Your task to perform on an android device: Show me popular games on the Play Store Image 0: 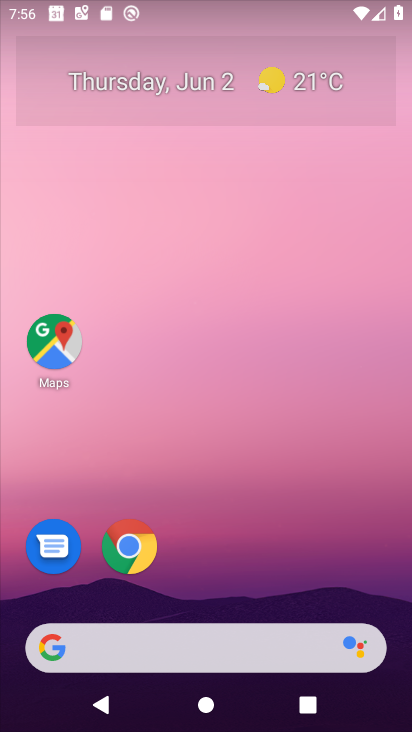
Step 0: drag from (221, 517) to (227, 73)
Your task to perform on an android device: Show me popular games on the Play Store Image 1: 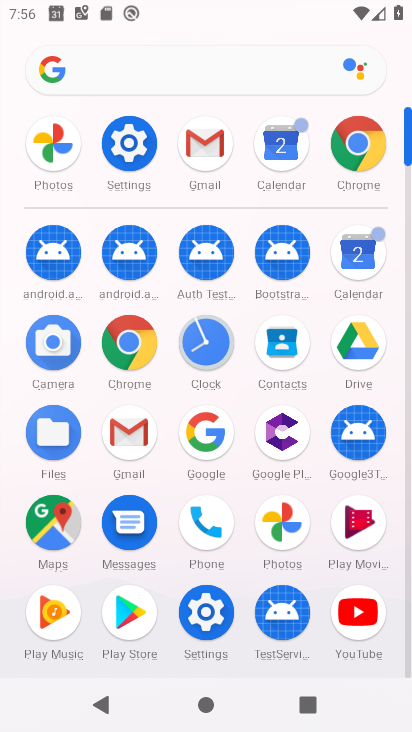
Step 1: click (128, 602)
Your task to perform on an android device: Show me popular games on the Play Store Image 2: 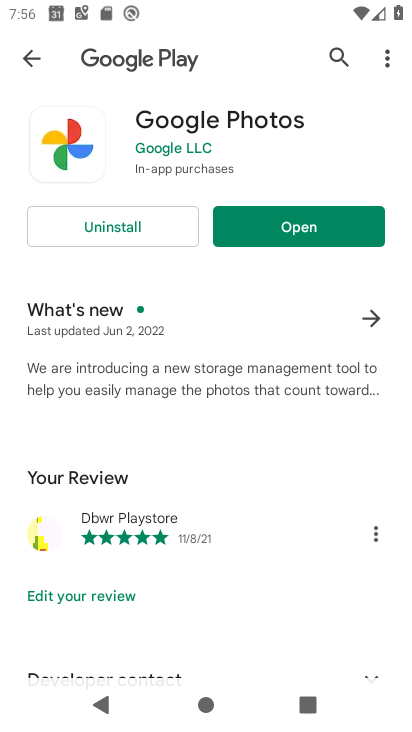
Step 2: click (24, 60)
Your task to perform on an android device: Show me popular games on the Play Store Image 3: 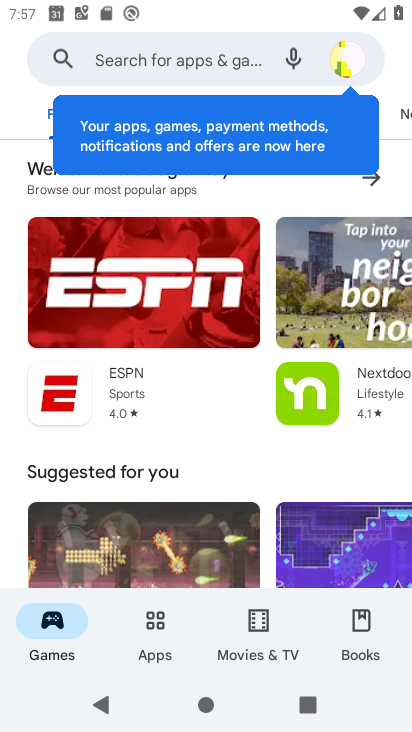
Step 3: click (8, 101)
Your task to perform on an android device: Show me popular games on the Play Store Image 4: 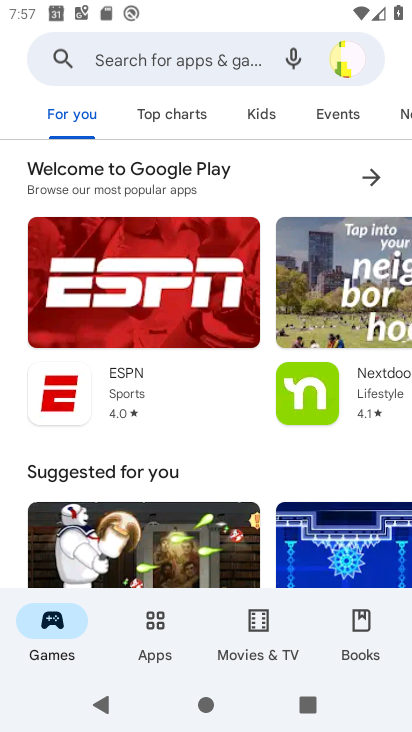
Step 4: click (180, 116)
Your task to perform on an android device: Show me popular games on the Play Store Image 5: 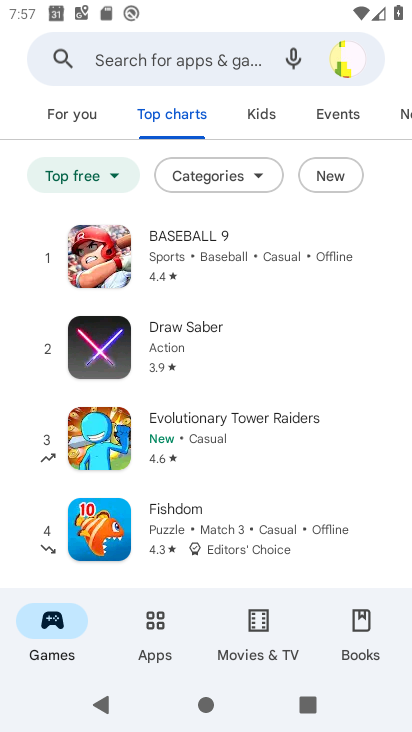
Step 5: task complete